Your task to perform on an android device: Open Chrome and go to settings Image 0: 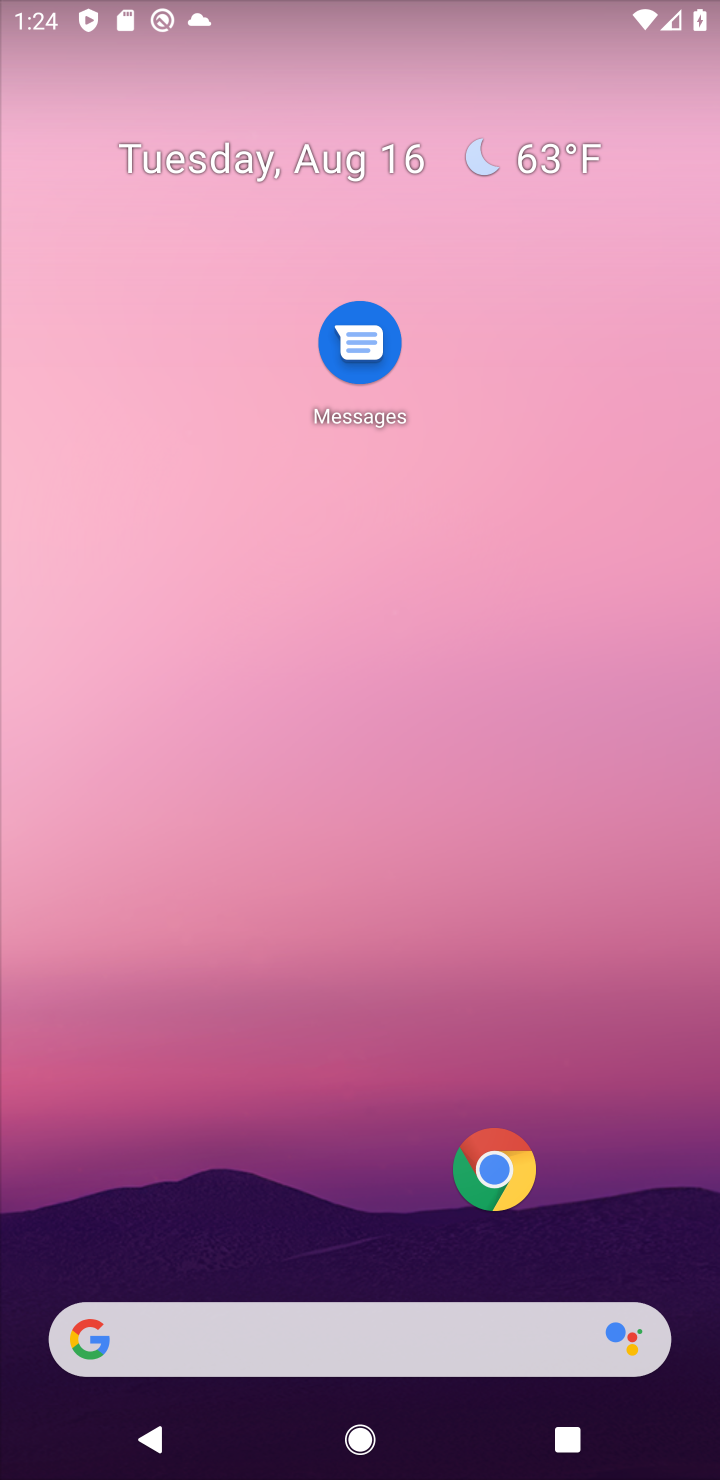
Step 0: click (463, 1166)
Your task to perform on an android device: Open Chrome and go to settings Image 1: 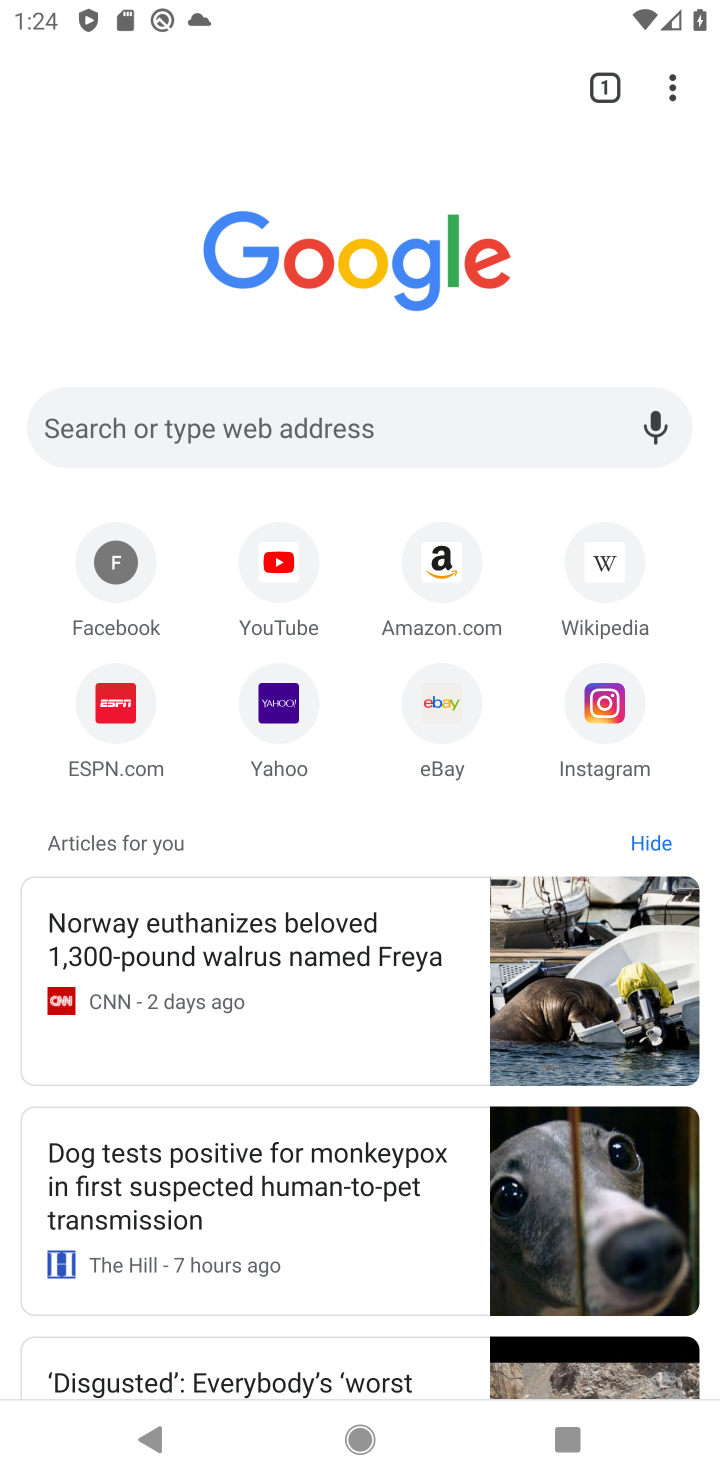
Step 1: click (676, 98)
Your task to perform on an android device: Open Chrome and go to settings Image 2: 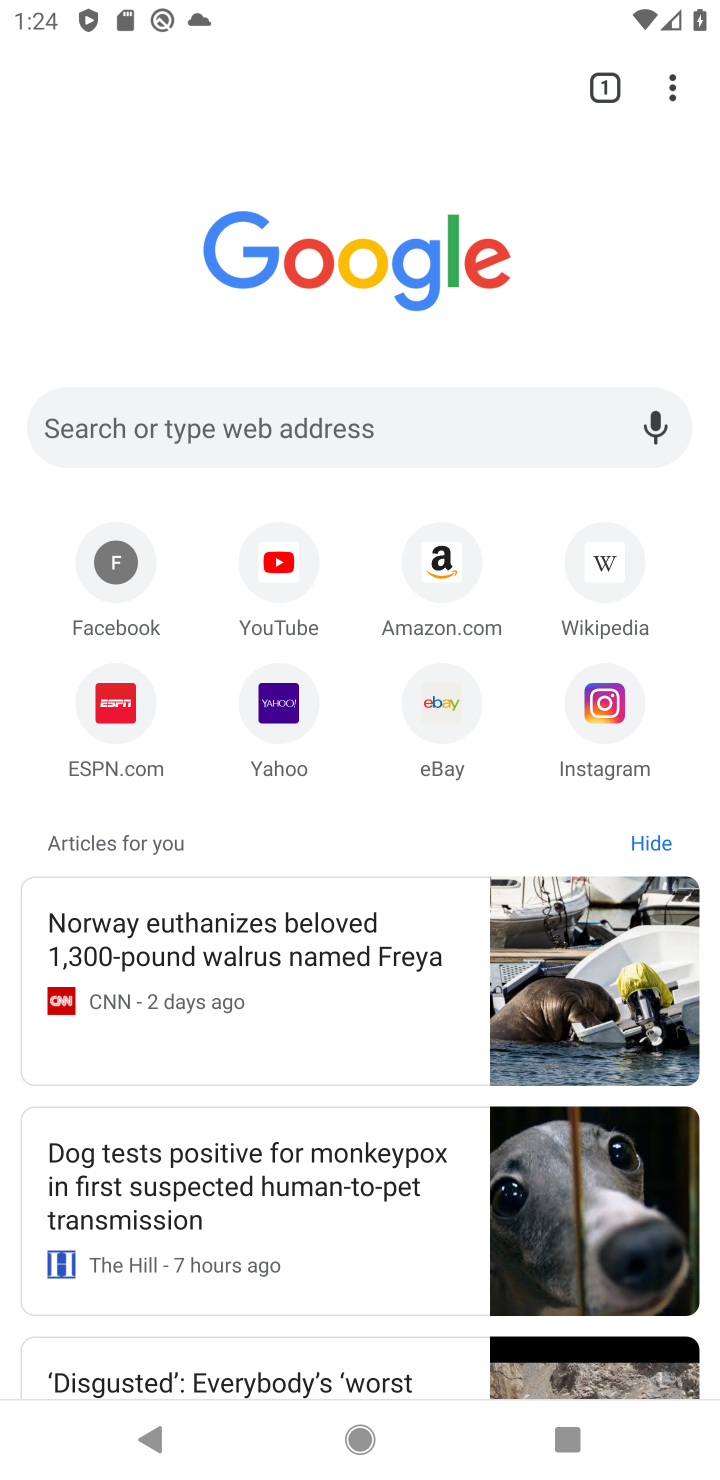
Step 2: click (684, 96)
Your task to perform on an android device: Open Chrome and go to settings Image 3: 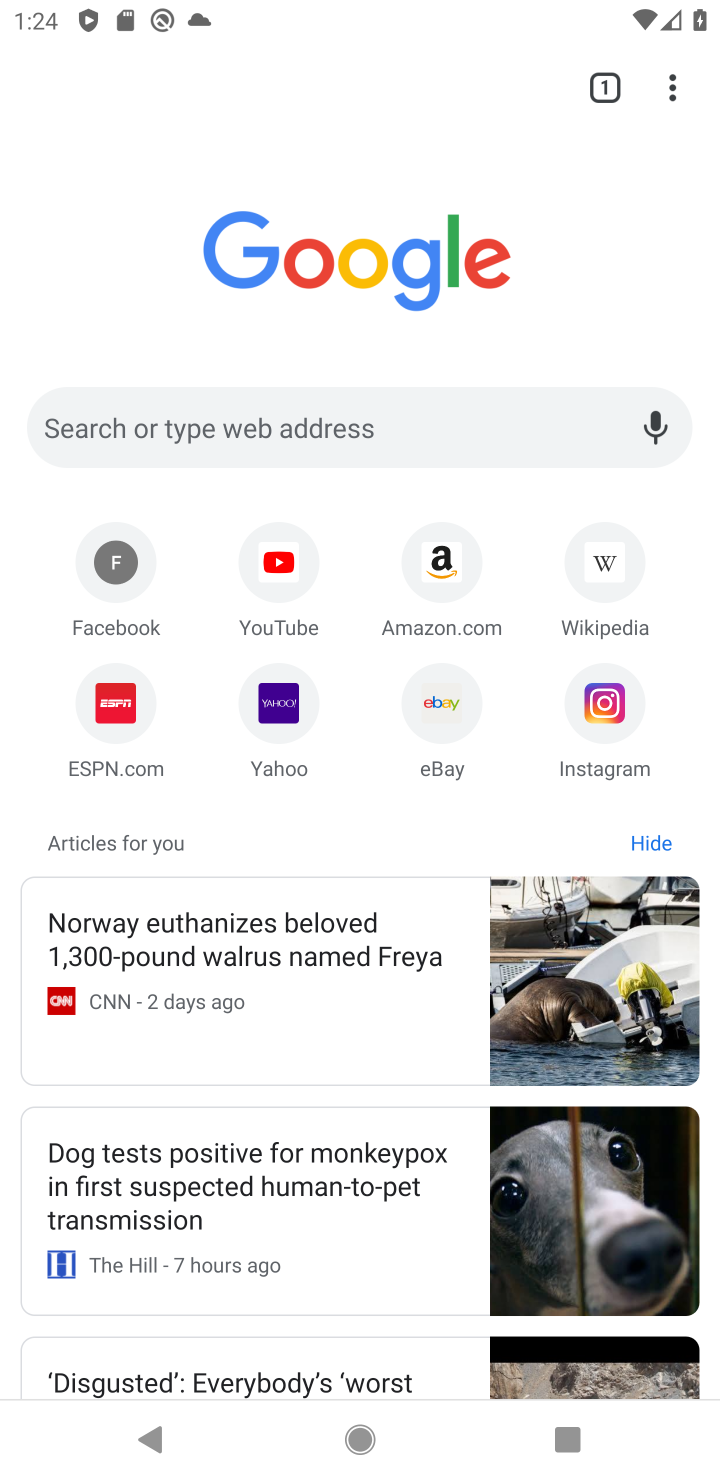
Step 3: click (684, 96)
Your task to perform on an android device: Open Chrome and go to settings Image 4: 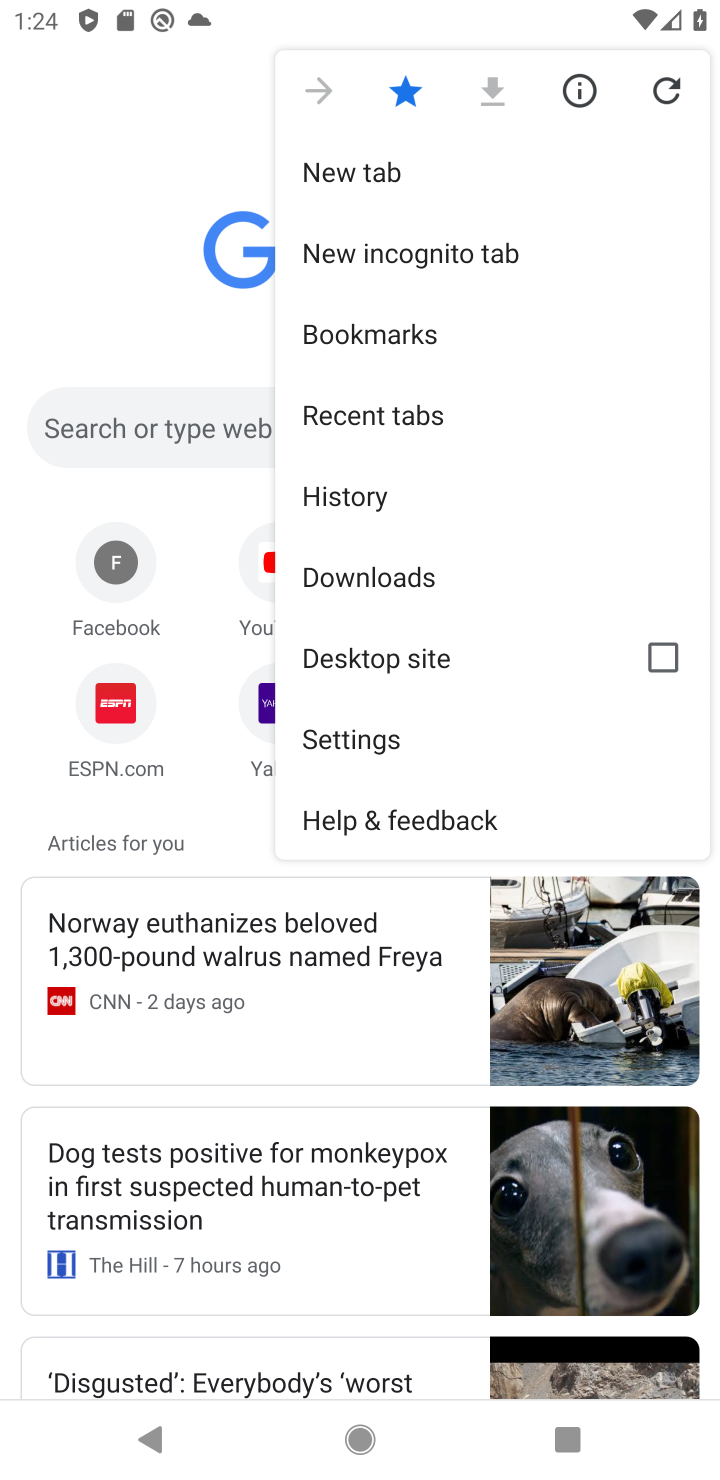
Step 4: click (351, 743)
Your task to perform on an android device: Open Chrome and go to settings Image 5: 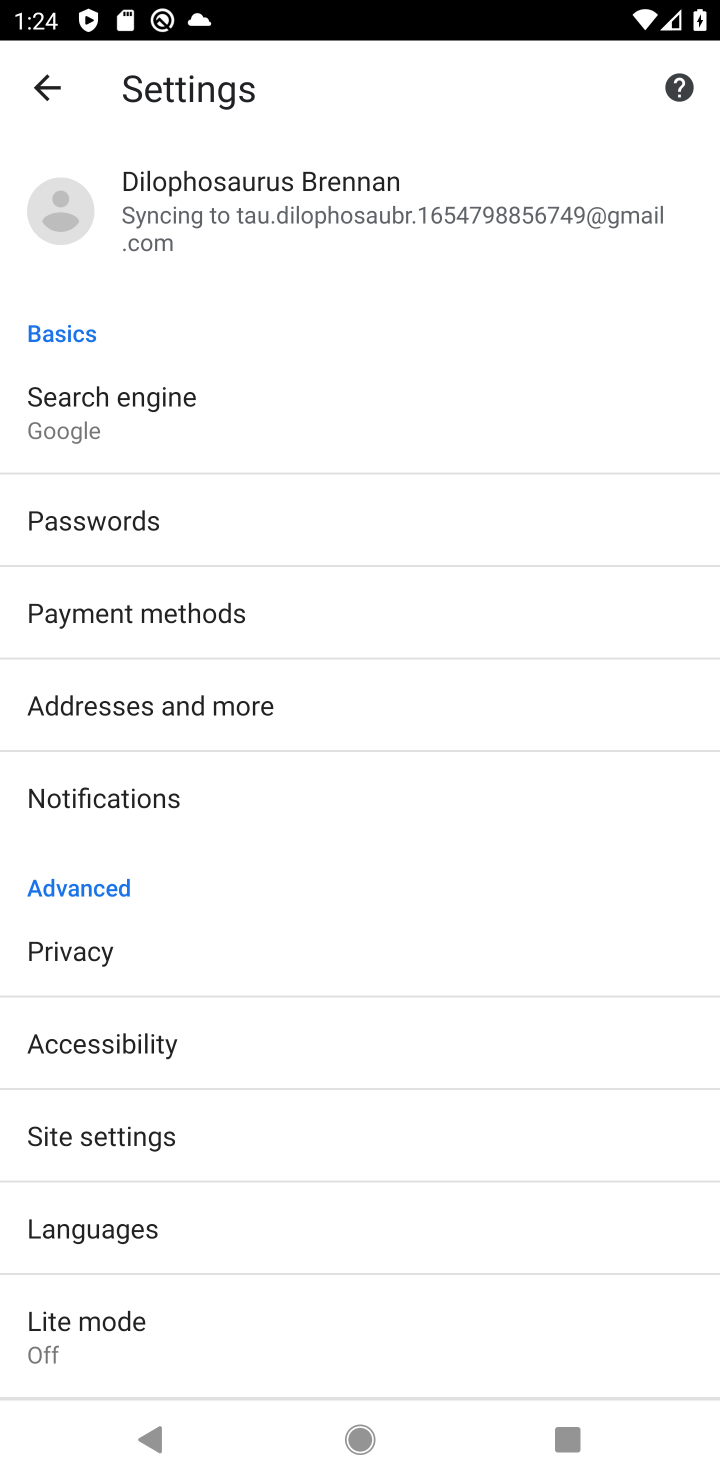
Step 5: click (101, 1138)
Your task to perform on an android device: Open Chrome and go to settings Image 6: 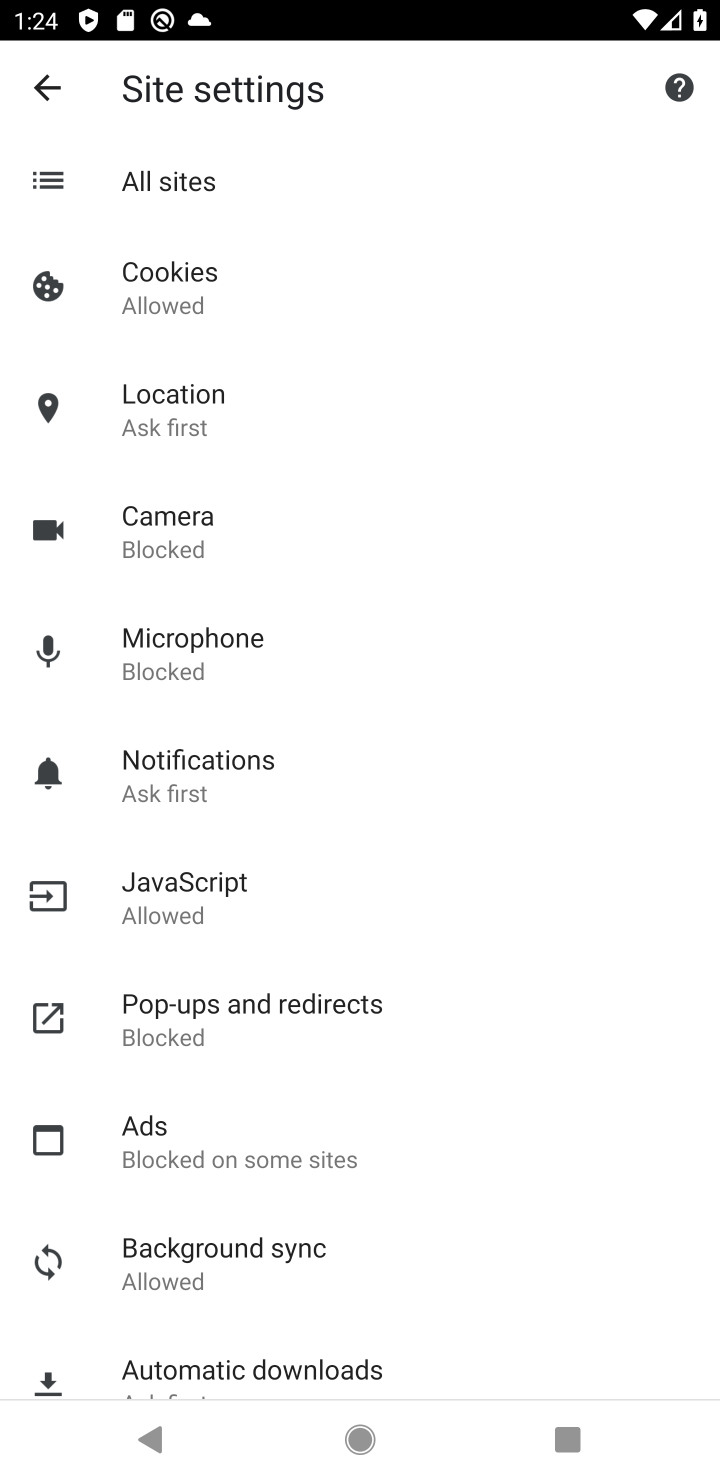
Step 6: task complete